Your task to perform on an android device: Go to battery settings Image 0: 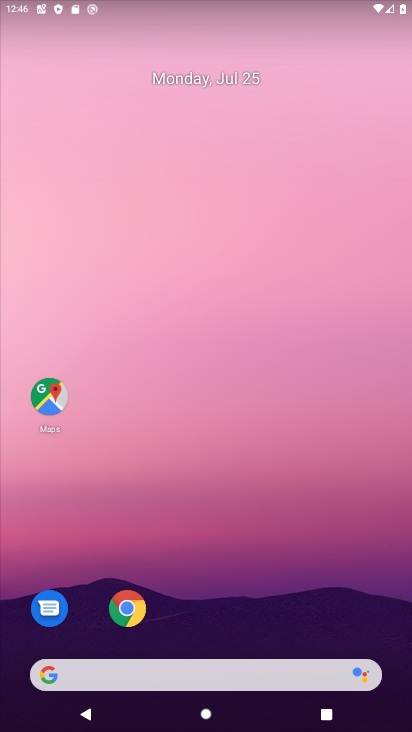
Step 0: drag from (238, 643) to (238, 5)
Your task to perform on an android device: Go to battery settings Image 1: 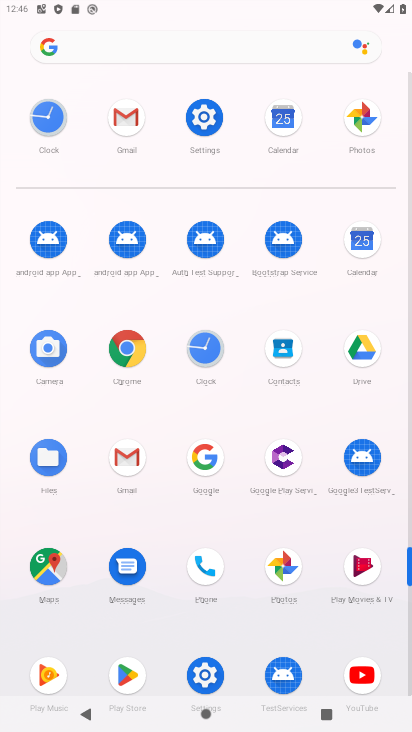
Step 1: click (208, 113)
Your task to perform on an android device: Go to battery settings Image 2: 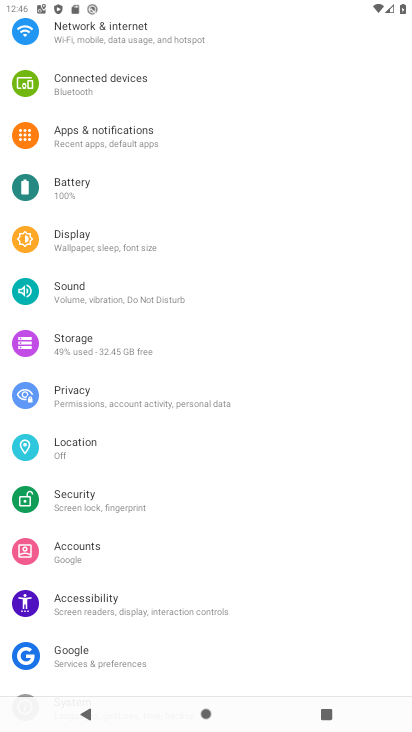
Step 2: click (86, 190)
Your task to perform on an android device: Go to battery settings Image 3: 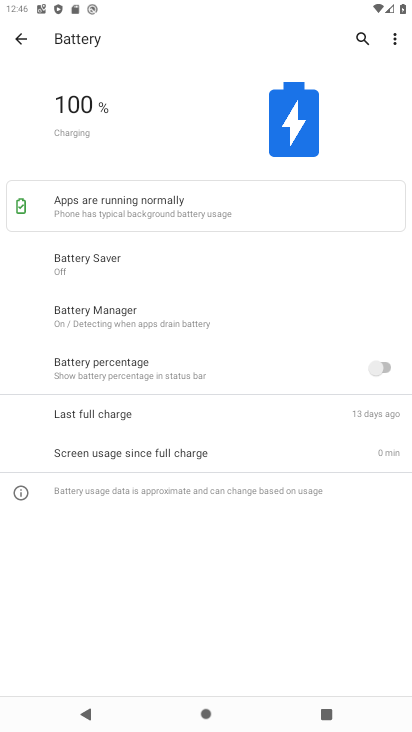
Step 3: task complete